Your task to perform on an android device: open chrome and create a bookmark for the current page Image 0: 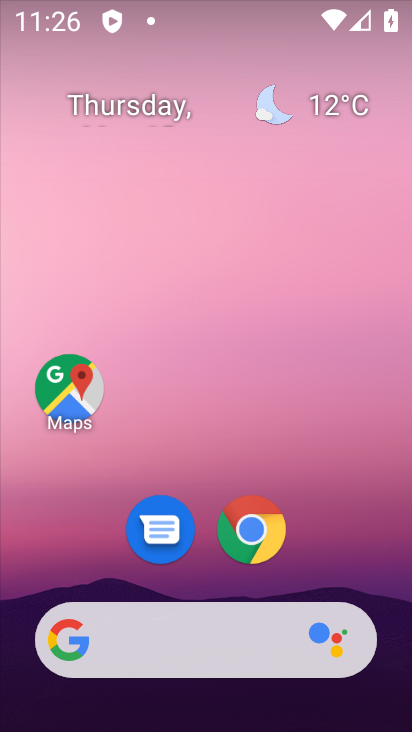
Step 0: drag from (378, 269) to (371, 172)
Your task to perform on an android device: open chrome and create a bookmark for the current page Image 1: 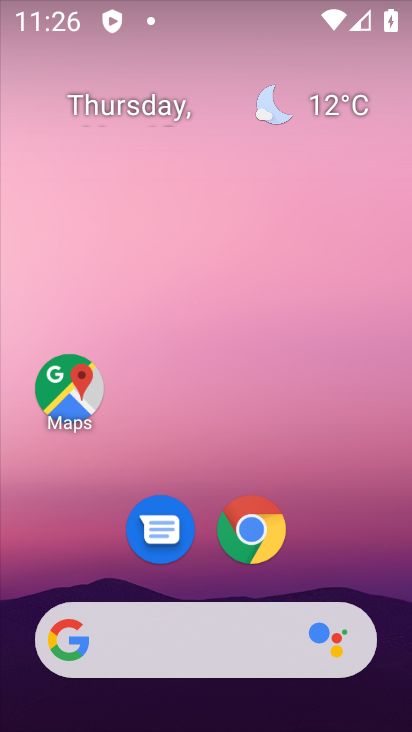
Step 1: click (255, 541)
Your task to perform on an android device: open chrome and create a bookmark for the current page Image 2: 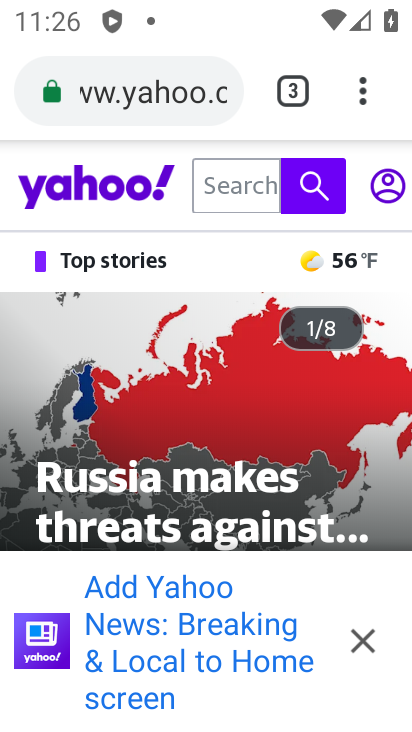
Step 2: click (341, 95)
Your task to perform on an android device: open chrome and create a bookmark for the current page Image 3: 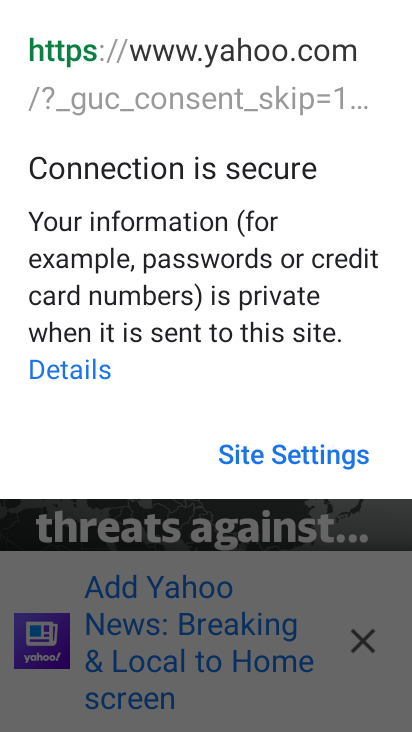
Step 3: press back button
Your task to perform on an android device: open chrome and create a bookmark for the current page Image 4: 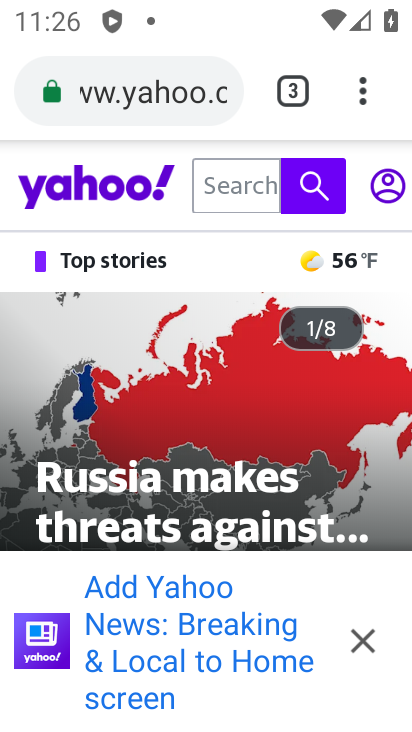
Step 4: click (338, 94)
Your task to perform on an android device: open chrome and create a bookmark for the current page Image 5: 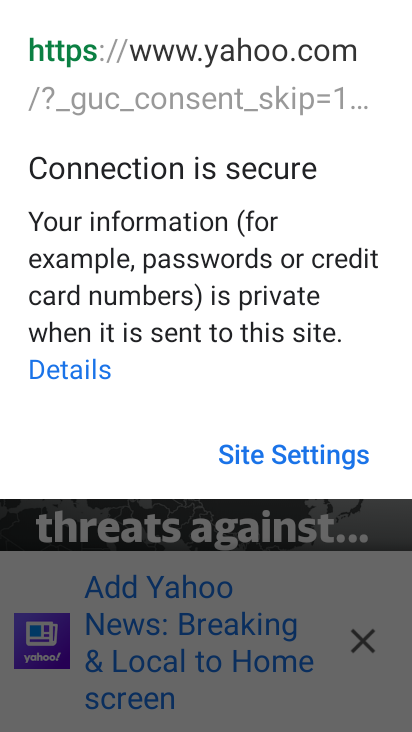
Step 5: press back button
Your task to perform on an android device: open chrome and create a bookmark for the current page Image 6: 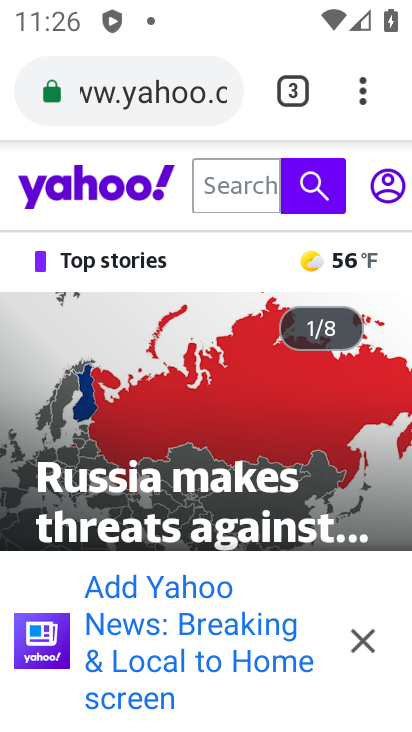
Step 6: click (388, 102)
Your task to perform on an android device: open chrome and create a bookmark for the current page Image 7: 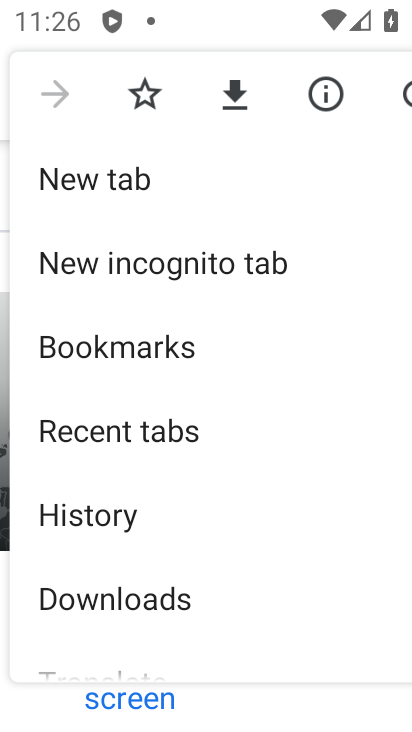
Step 7: click (130, 87)
Your task to perform on an android device: open chrome and create a bookmark for the current page Image 8: 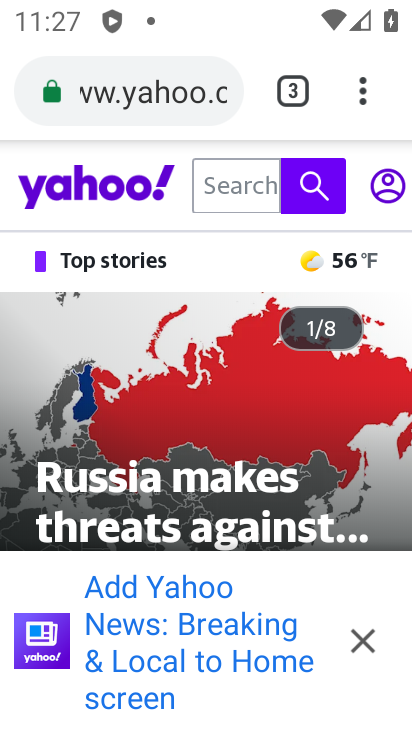
Step 8: task complete